Your task to perform on an android device: turn off improve location accuracy Image 0: 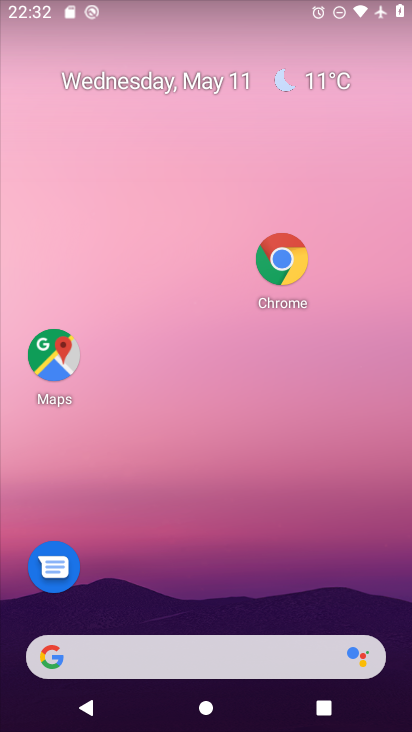
Step 0: drag from (188, 659) to (330, 77)
Your task to perform on an android device: turn off improve location accuracy Image 1: 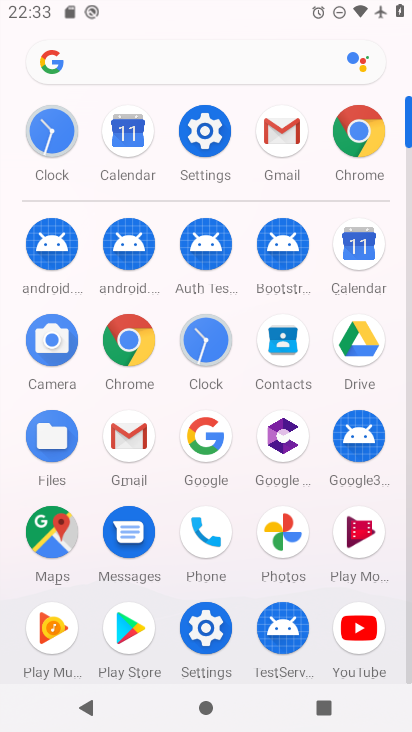
Step 1: click (198, 122)
Your task to perform on an android device: turn off improve location accuracy Image 2: 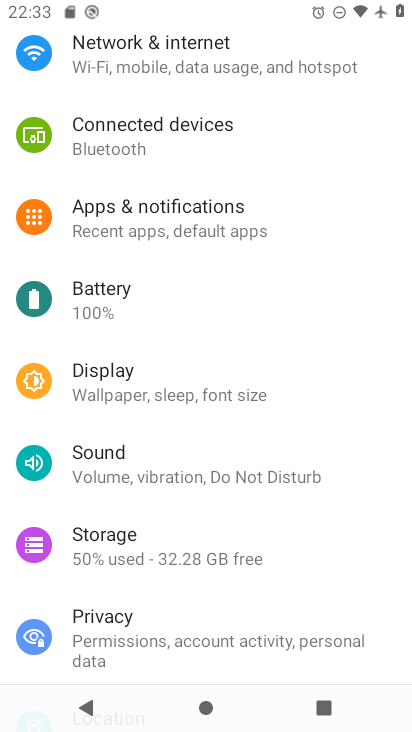
Step 2: drag from (191, 494) to (269, 144)
Your task to perform on an android device: turn off improve location accuracy Image 3: 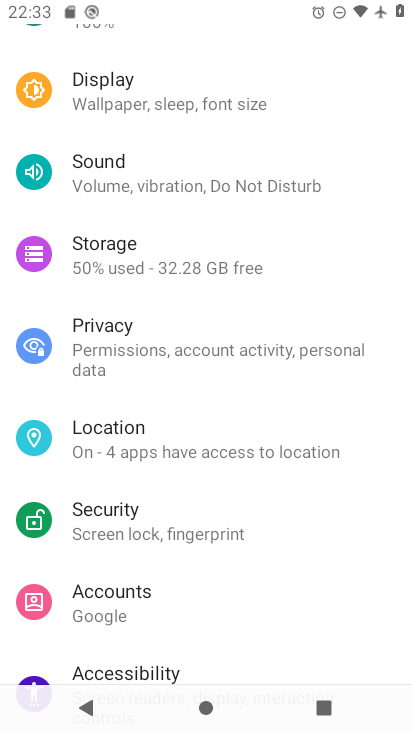
Step 3: click (152, 441)
Your task to perform on an android device: turn off improve location accuracy Image 4: 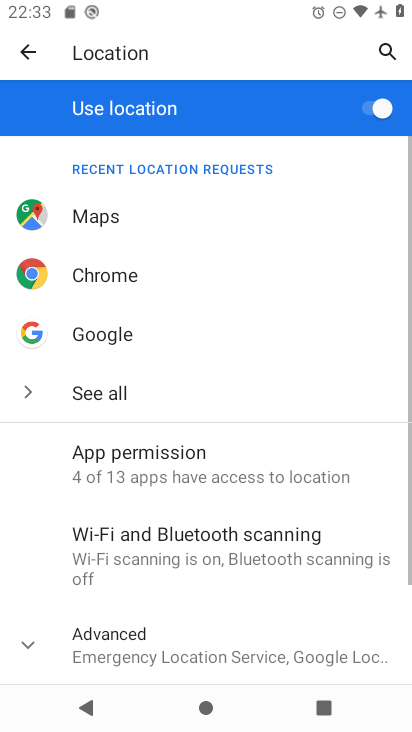
Step 4: drag from (147, 589) to (305, 264)
Your task to perform on an android device: turn off improve location accuracy Image 5: 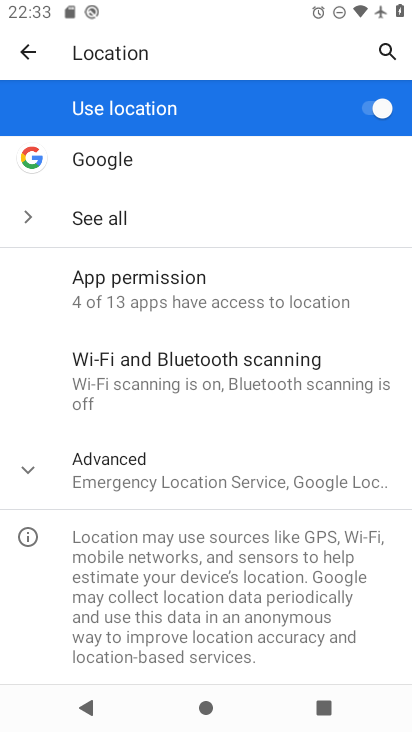
Step 5: click (152, 471)
Your task to perform on an android device: turn off improve location accuracy Image 6: 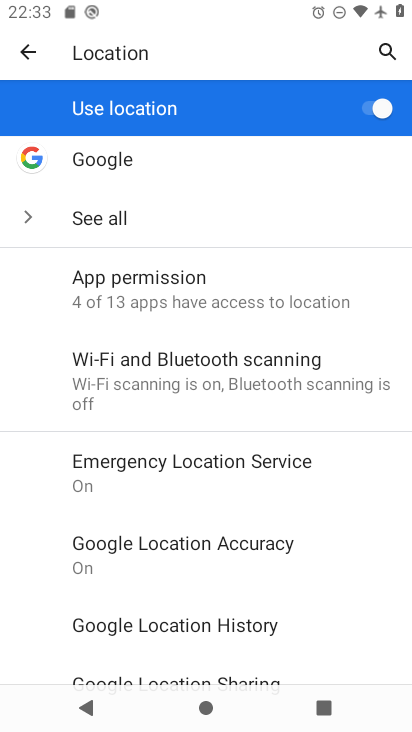
Step 6: click (133, 541)
Your task to perform on an android device: turn off improve location accuracy Image 7: 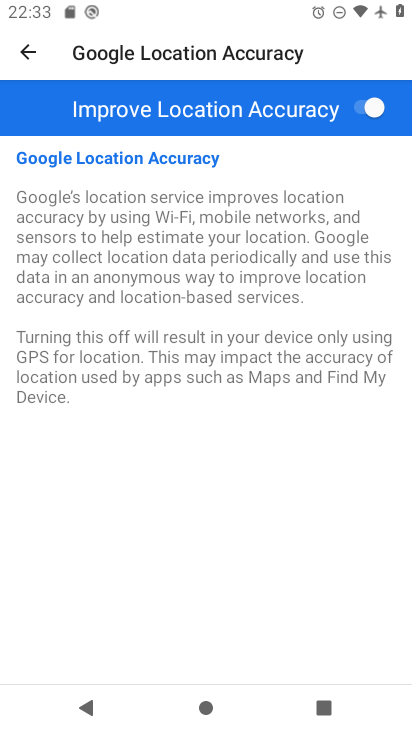
Step 7: click (364, 112)
Your task to perform on an android device: turn off improve location accuracy Image 8: 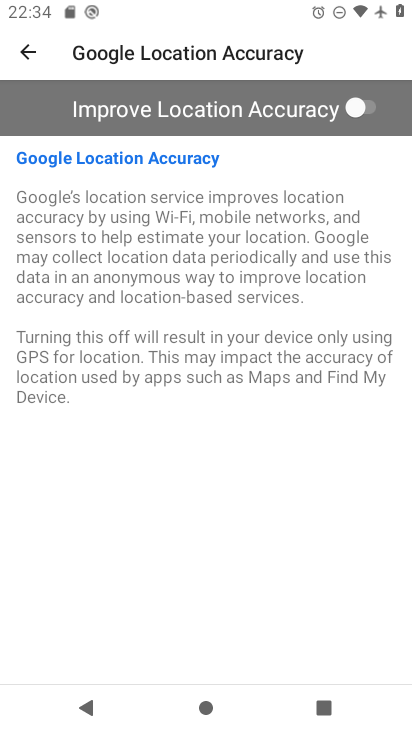
Step 8: task complete